Your task to perform on an android device: open app "Move to iOS" Image 0: 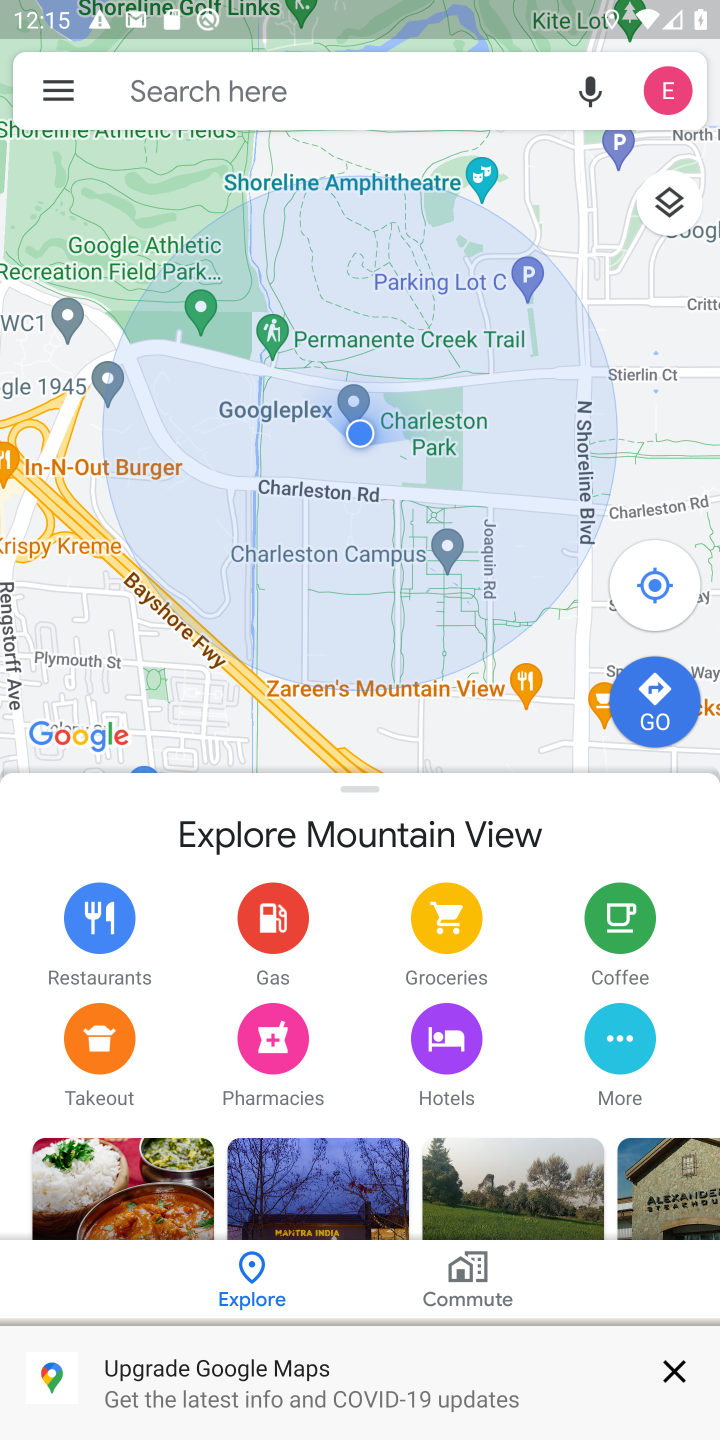
Step 0: press home button
Your task to perform on an android device: open app "Move to iOS" Image 1: 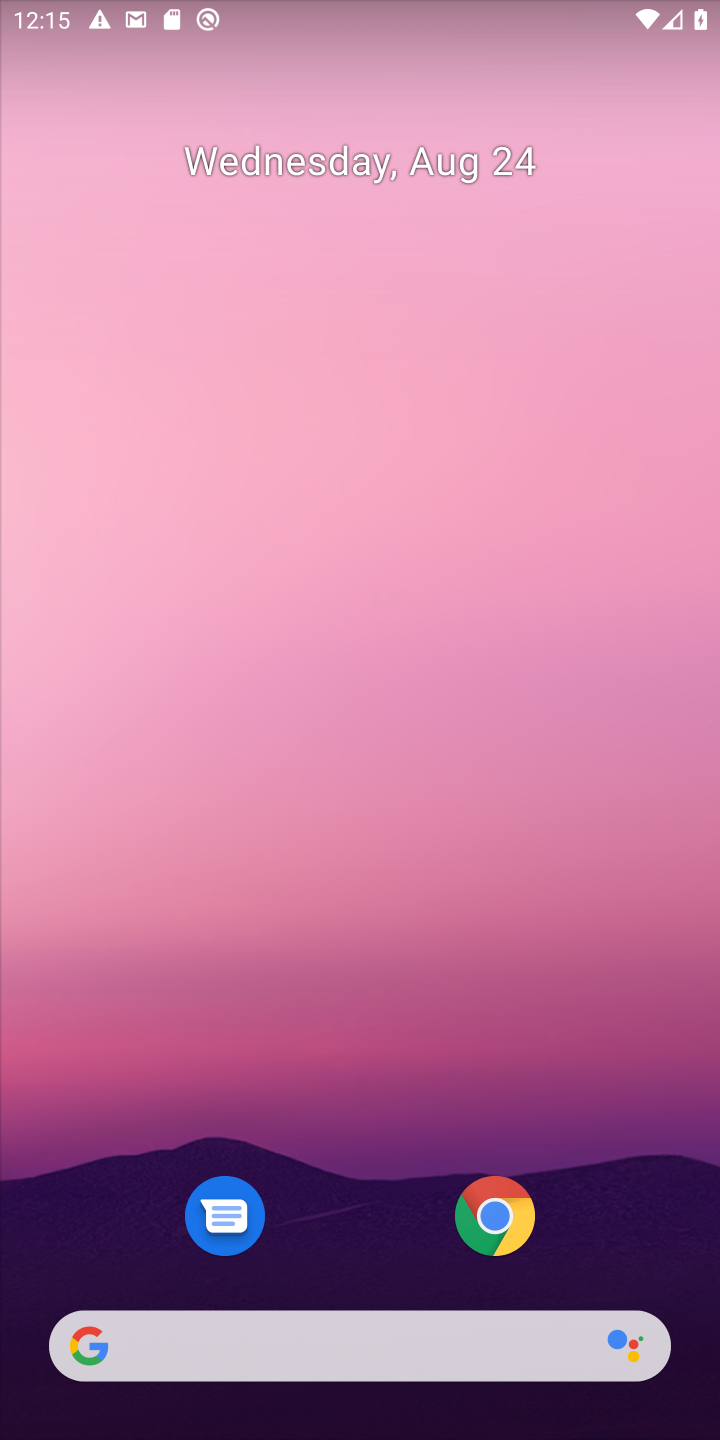
Step 1: drag from (344, 1363) to (408, 13)
Your task to perform on an android device: open app "Move to iOS" Image 2: 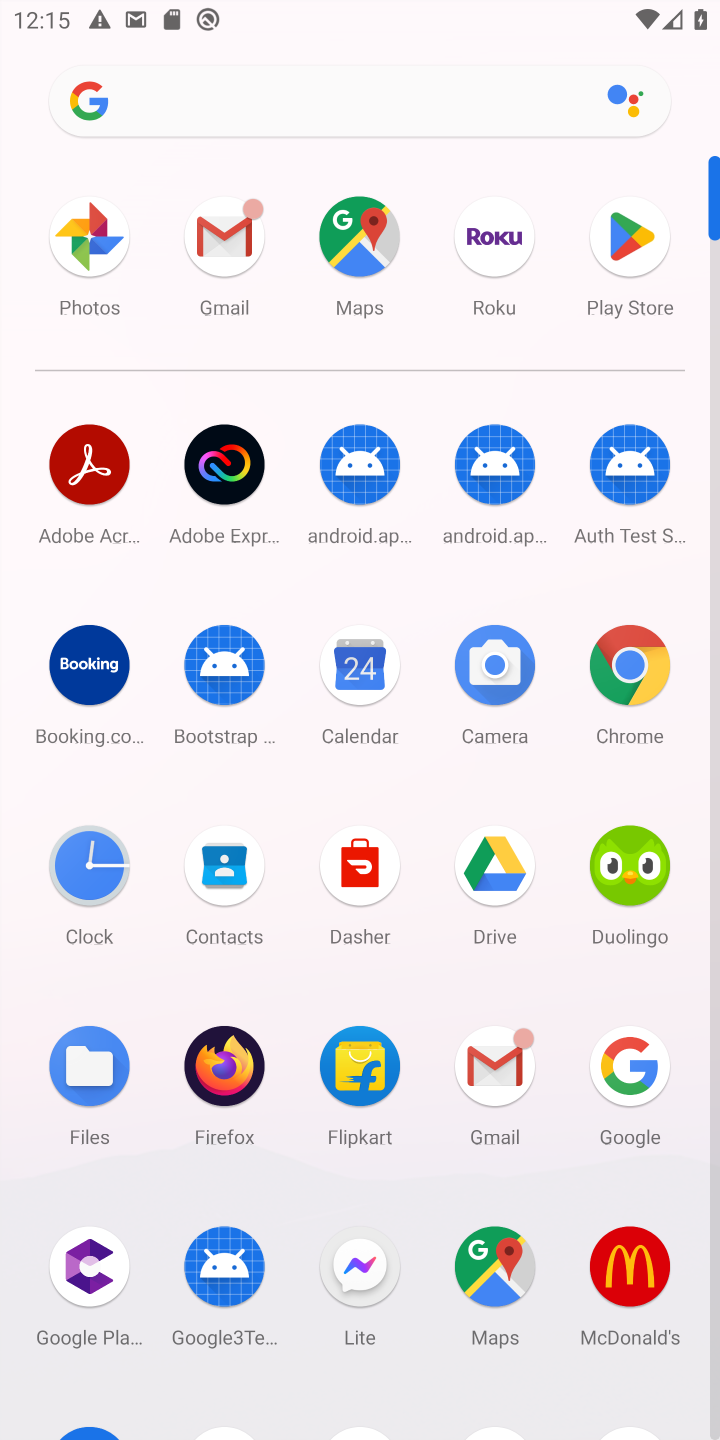
Step 2: click (641, 261)
Your task to perform on an android device: open app "Move to iOS" Image 3: 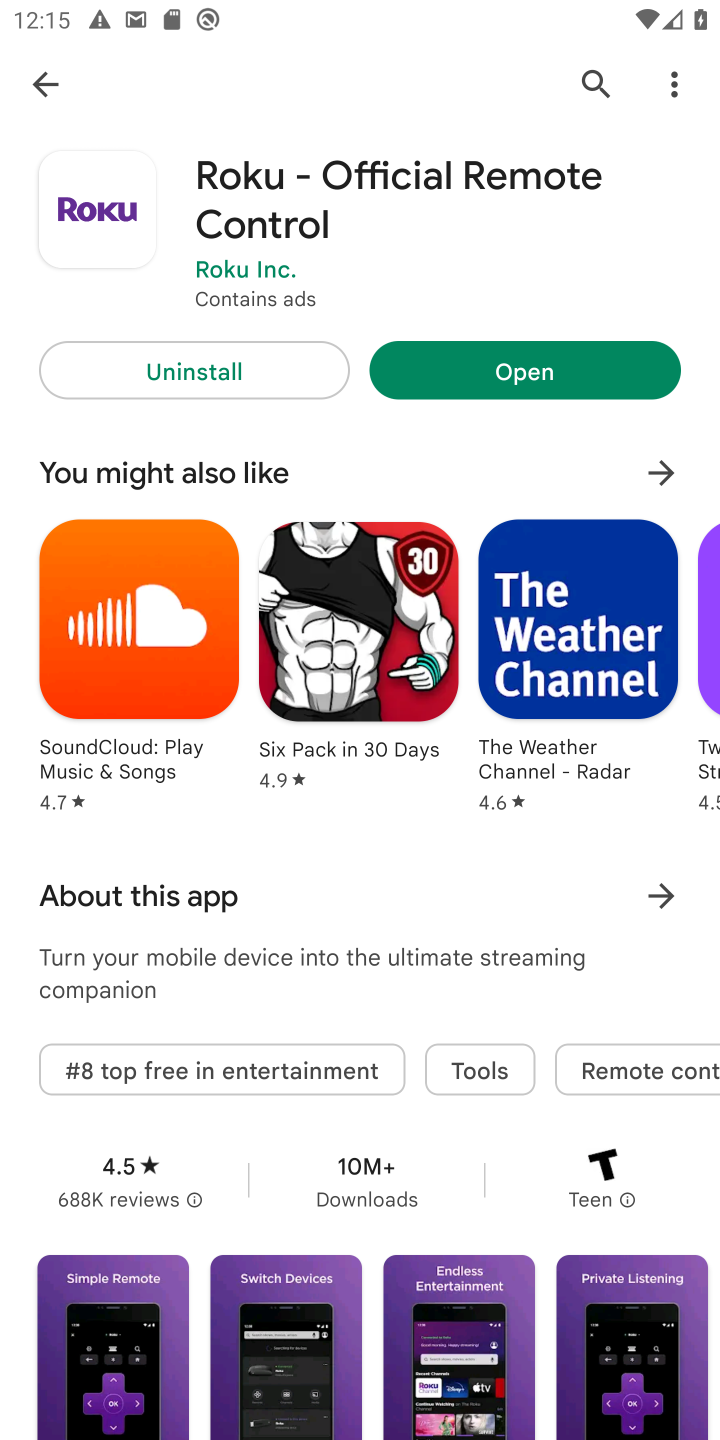
Step 3: press back button
Your task to perform on an android device: open app "Move to iOS" Image 4: 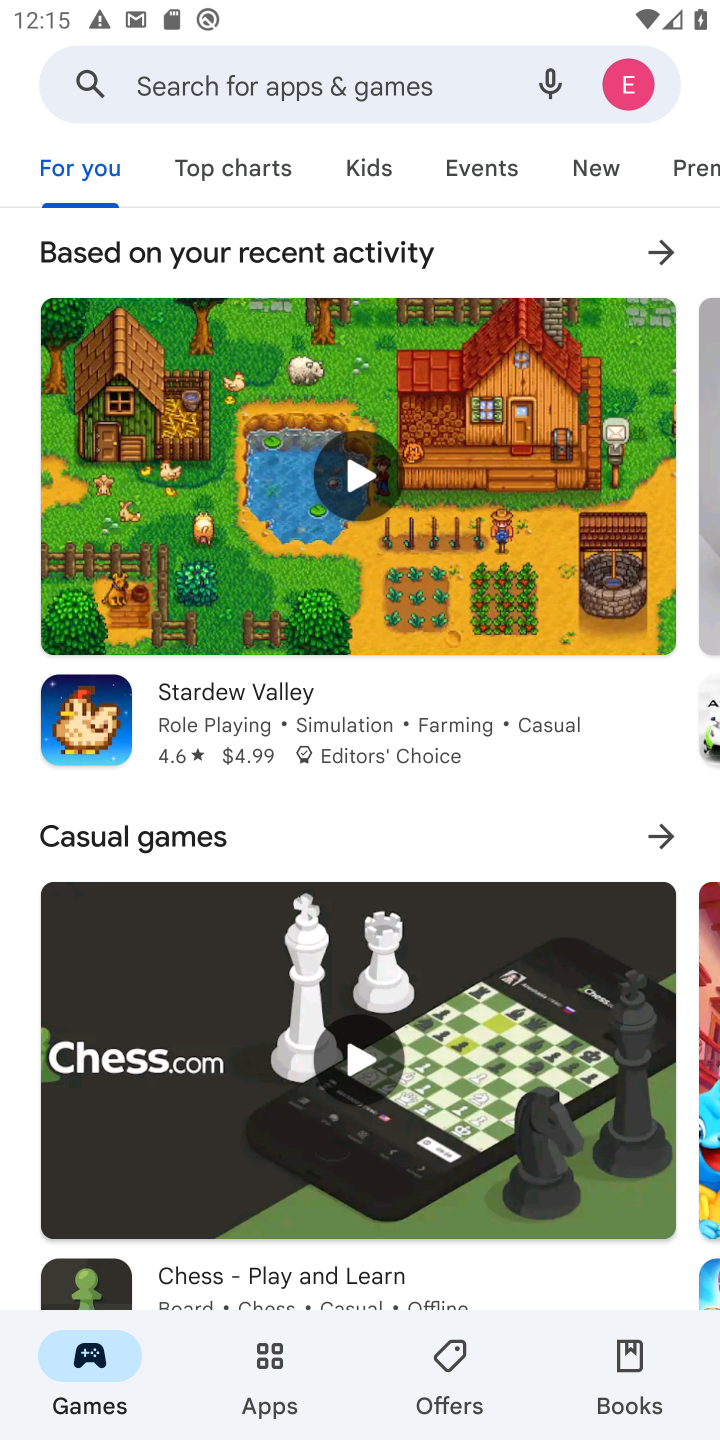
Step 4: click (382, 76)
Your task to perform on an android device: open app "Move to iOS" Image 5: 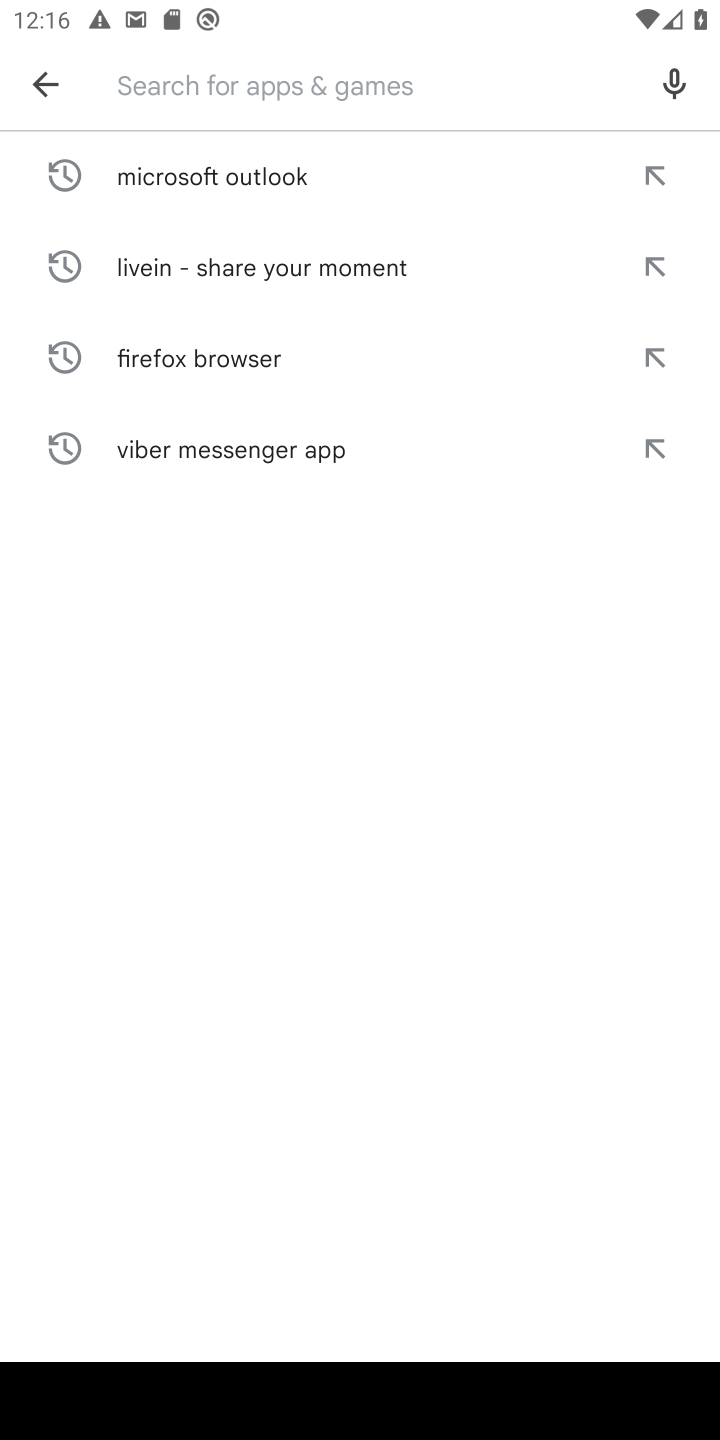
Step 5: type "Move to iOS"
Your task to perform on an android device: open app "Move to iOS" Image 6: 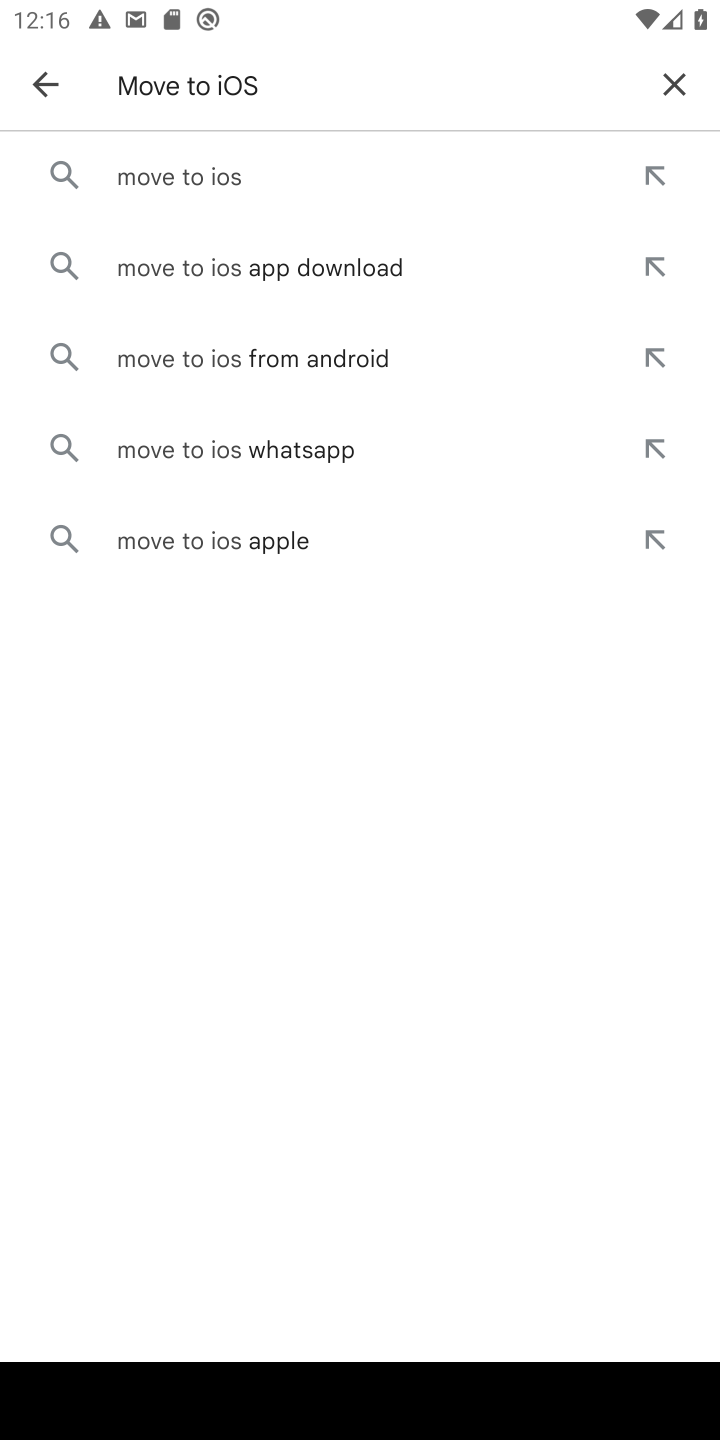
Step 6: click (209, 191)
Your task to perform on an android device: open app "Move to iOS" Image 7: 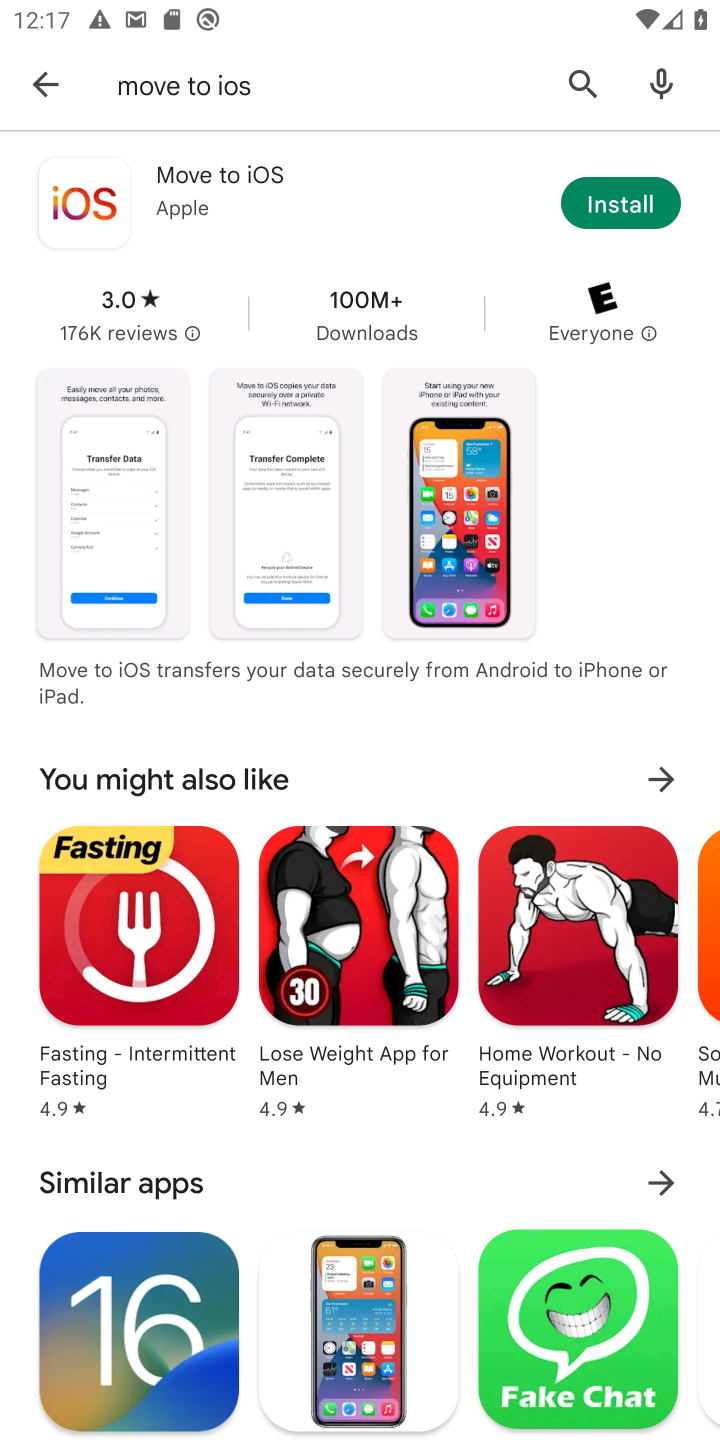
Step 7: task complete